Your task to perform on an android device: set the timer Image 0: 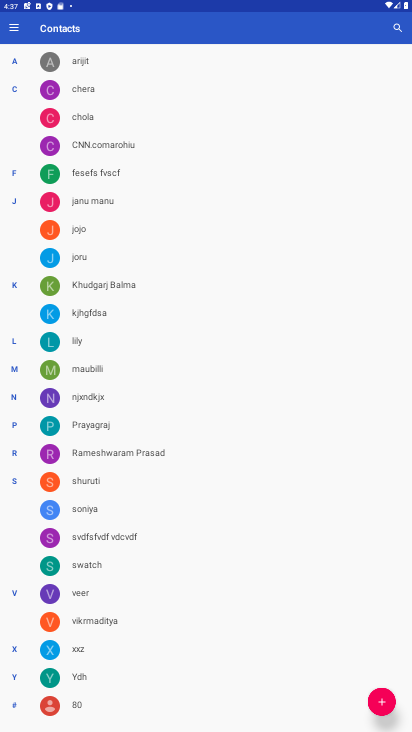
Step 0: press home button
Your task to perform on an android device: set the timer Image 1: 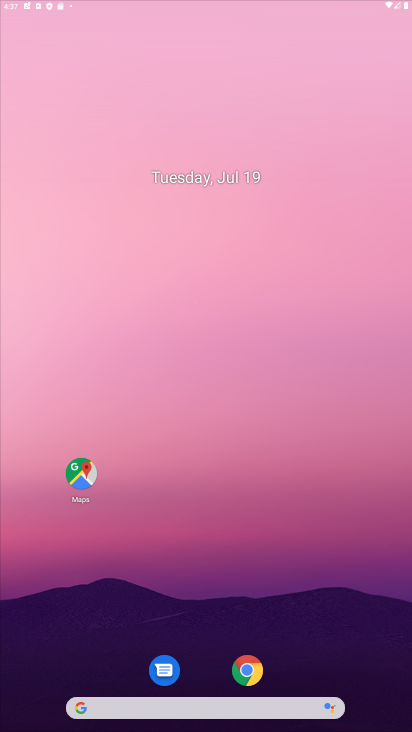
Step 1: drag from (258, 675) to (239, 20)
Your task to perform on an android device: set the timer Image 2: 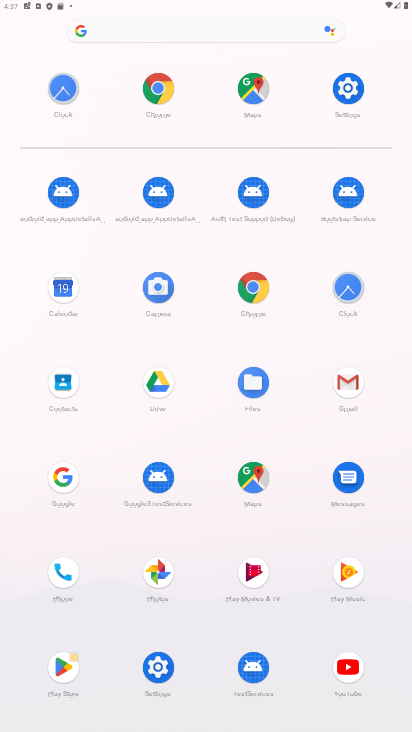
Step 2: click (346, 290)
Your task to perform on an android device: set the timer Image 3: 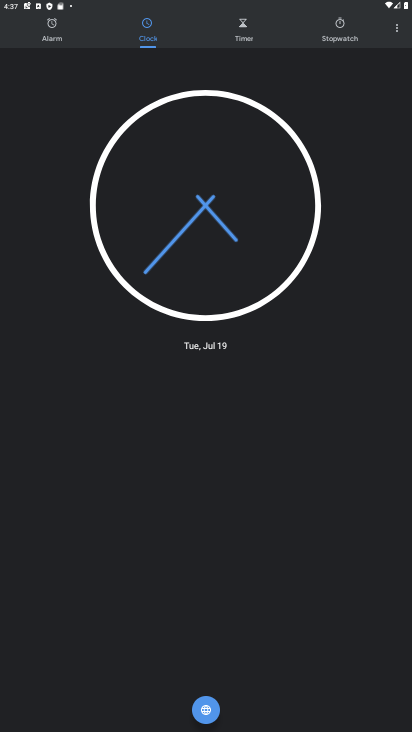
Step 3: click (248, 35)
Your task to perform on an android device: set the timer Image 4: 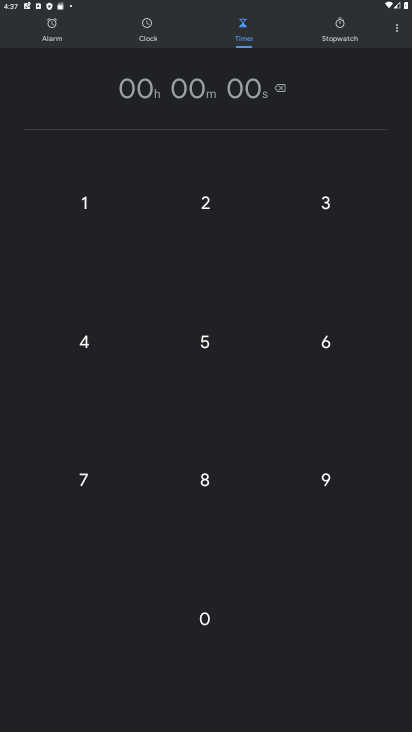
Step 4: click (337, 478)
Your task to perform on an android device: set the timer Image 5: 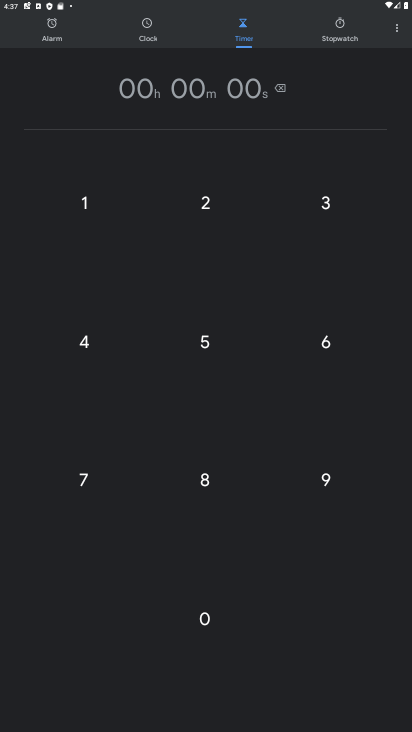
Step 5: click (337, 478)
Your task to perform on an android device: set the timer Image 6: 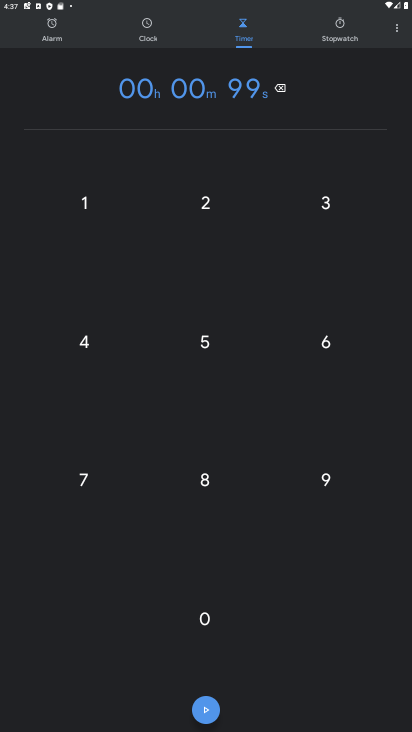
Step 6: click (337, 478)
Your task to perform on an android device: set the timer Image 7: 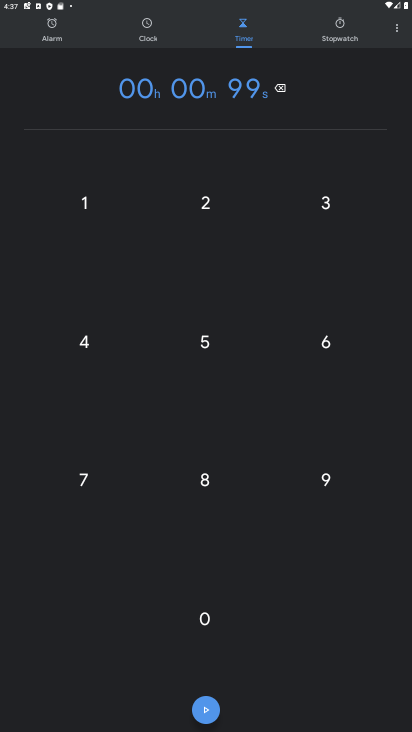
Step 7: click (337, 478)
Your task to perform on an android device: set the timer Image 8: 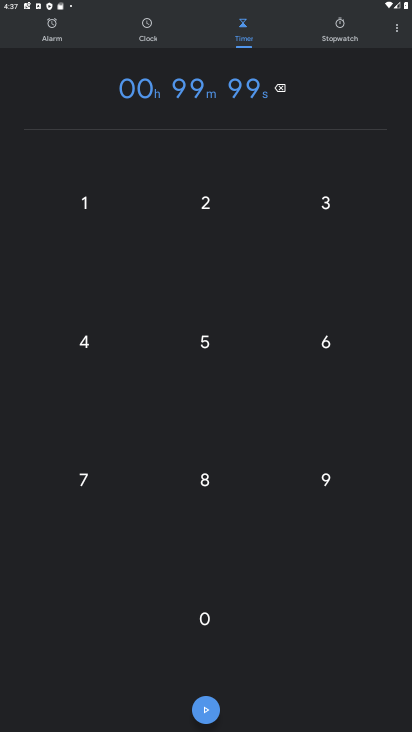
Step 8: click (337, 478)
Your task to perform on an android device: set the timer Image 9: 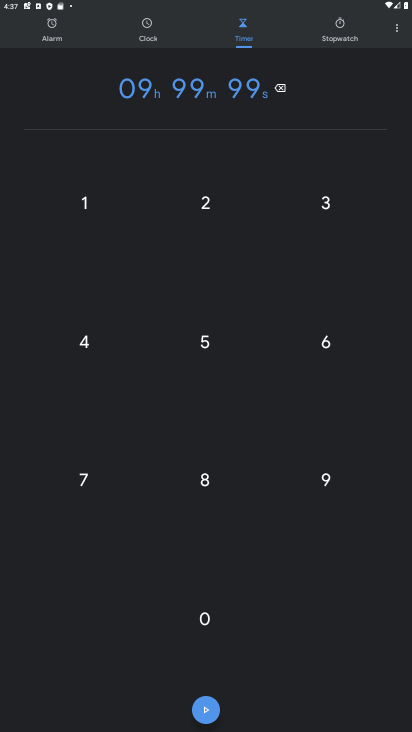
Step 9: click (212, 704)
Your task to perform on an android device: set the timer Image 10: 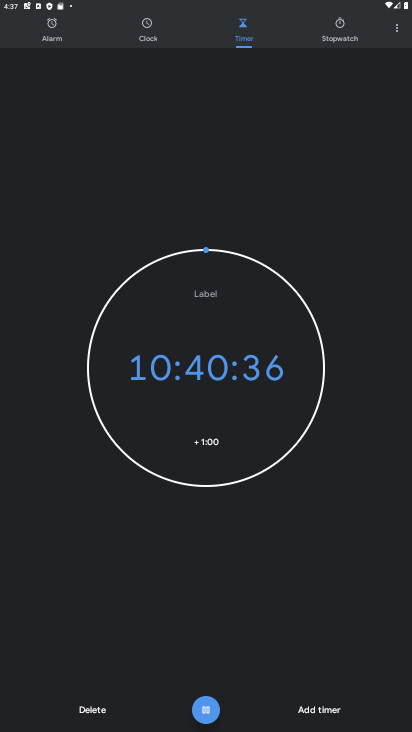
Step 10: task complete